Your task to perform on an android device: toggle improve location accuracy Image 0: 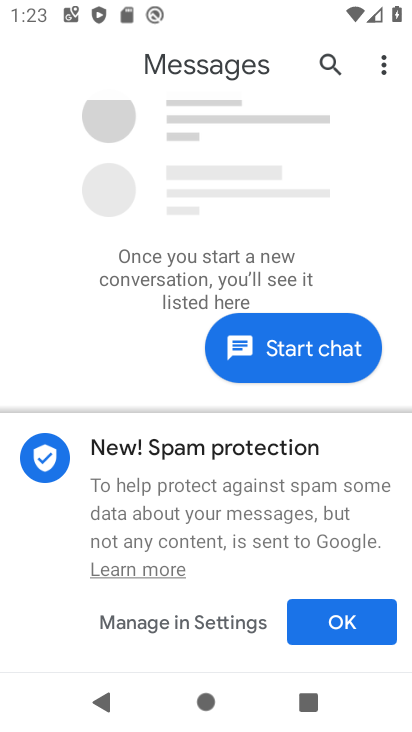
Step 0: press home button
Your task to perform on an android device: toggle improve location accuracy Image 1: 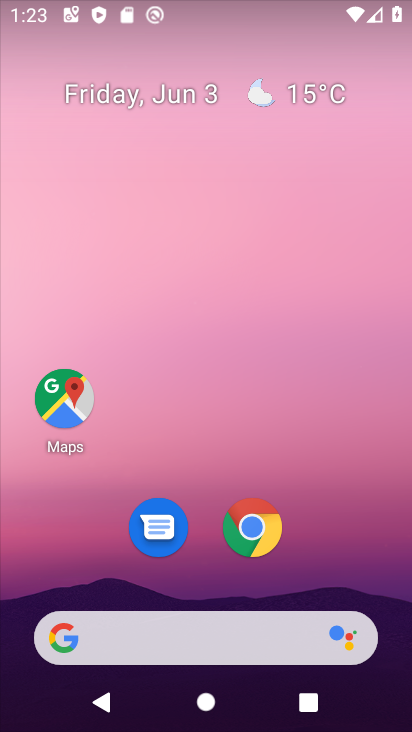
Step 1: drag from (372, 550) to (310, 192)
Your task to perform on an android device: toggle improve location accuracy Image 2: 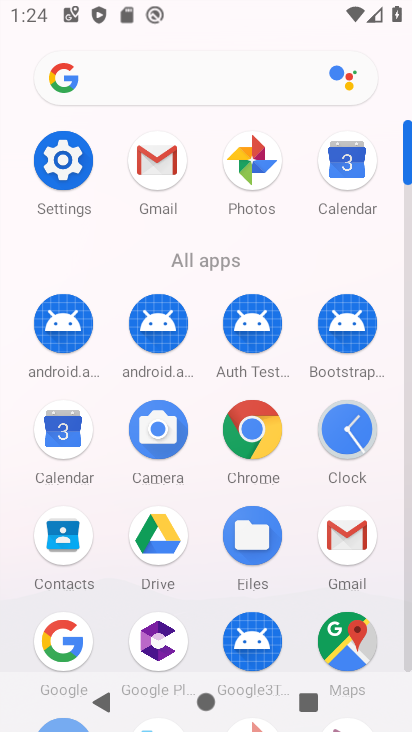
Step 2: click (72, 160)
Your task to perform on an android device: toggle improve location accuracy Image 3: 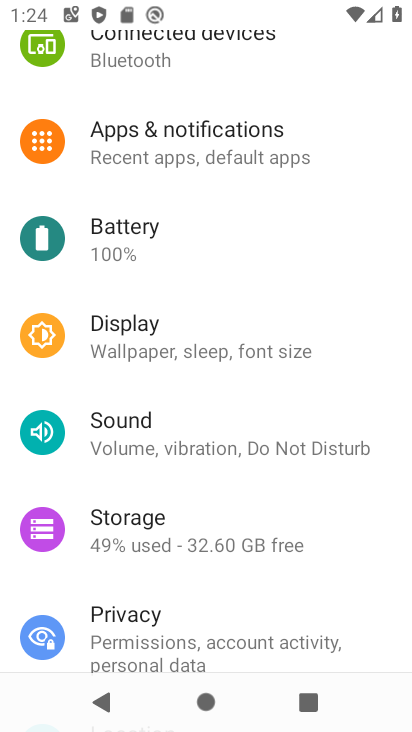
Step 3: drag from (217, 591) to (189, 437)
Your task to perform on an android device: toggle improve location accuracy Image 4: 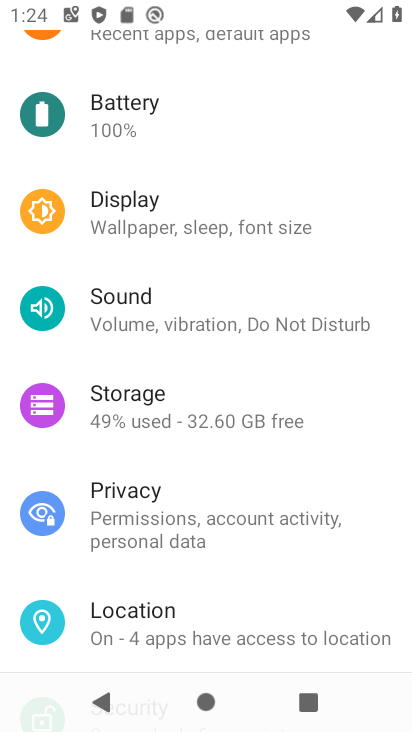
Step 4: click (222, 605)
Your task to perform on an android device: toggle improve location accuracy Image 5: 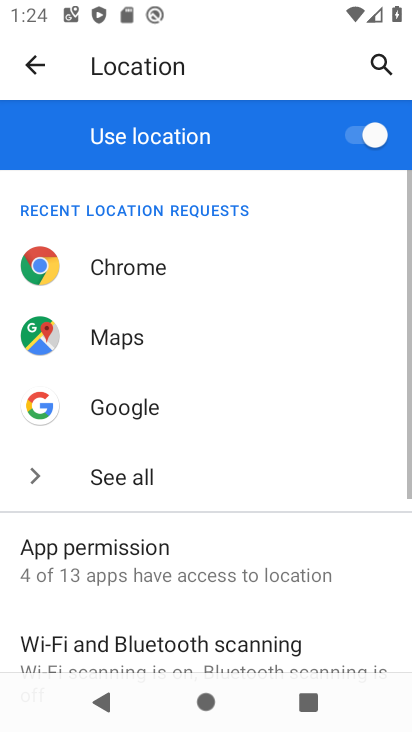
Step 5: drag from (269, 620) to (223, 363)
Your task to perform on an android device: toggle improve location accuracy Image 6: 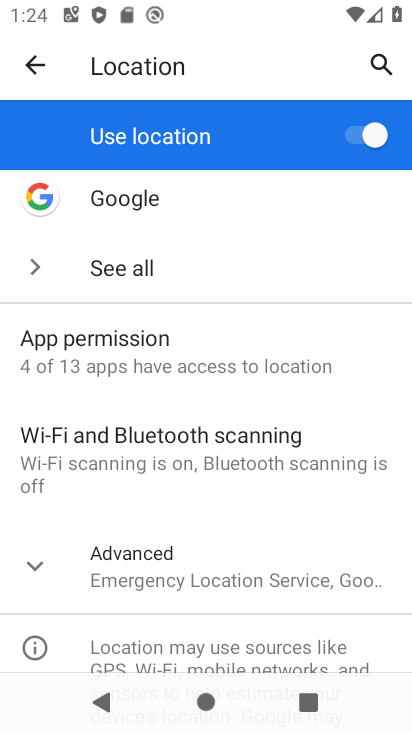
Step 6: click (264, 566)
Your task to perform on an android device: toggle improve location accuracy Image 7: 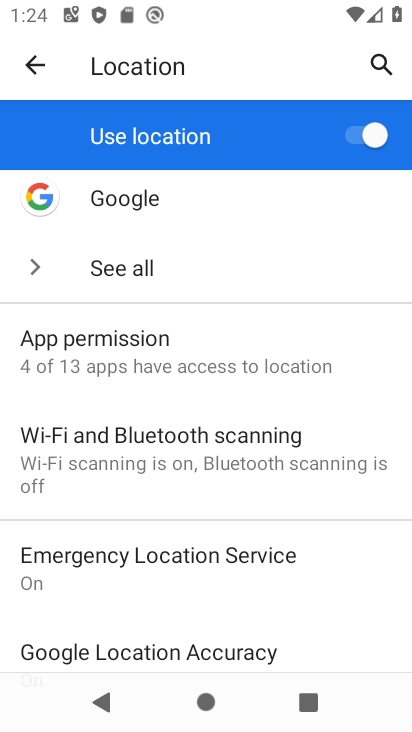
Step 7: click (258, 650)
Your task to perform on an android device: toggle improve location accuracy Image 8: 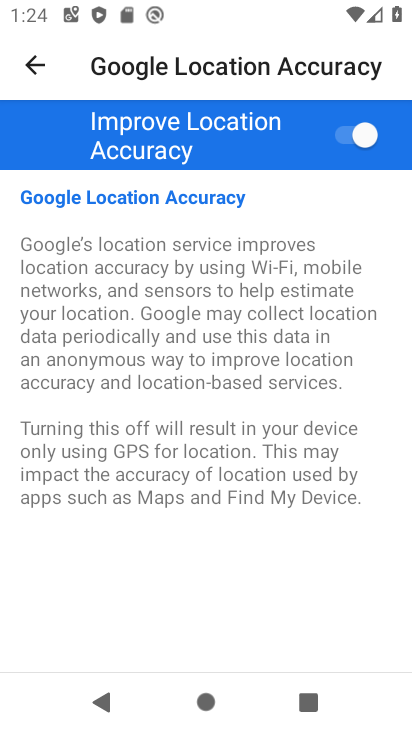
Step 8: click (372, 135)
Your task to perform on an android device: toggle improve location accuracy Image 9: 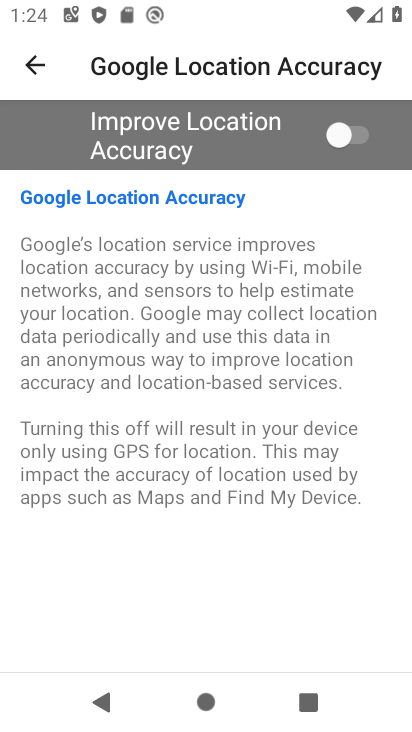
Step 9: task complete